Your task to perform on an android device: change the clock display to analog Image 0: 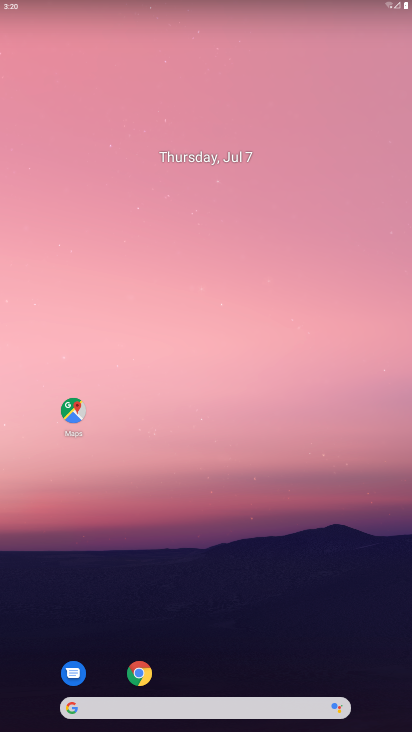
Step 0: click (225, 46)
Your task to perform on an android device: change the clock display to analog Image 1: 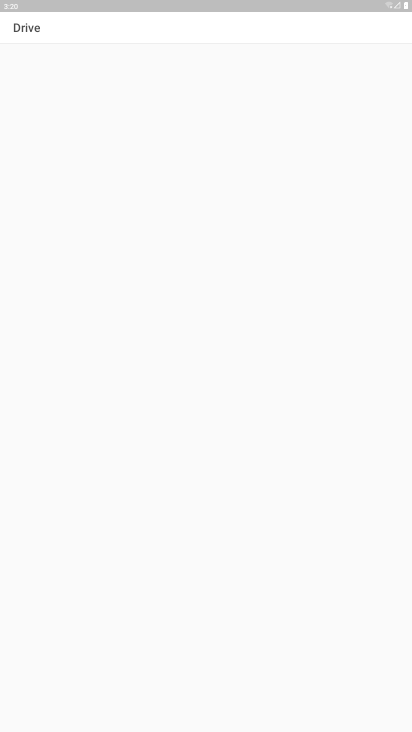
Step 1: press home button
Your task to perform on an android device: change the clock display to analog Image 2: 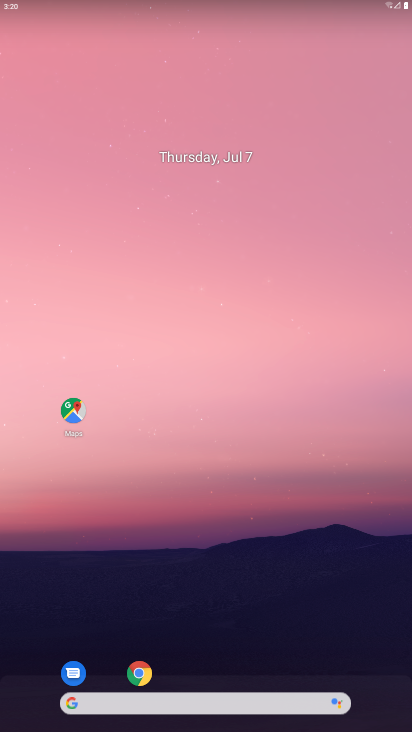
Step 2: drag from (157, 705) to (256, 26)
Your task to perform on an android device: change the clock display to analog Image 3: 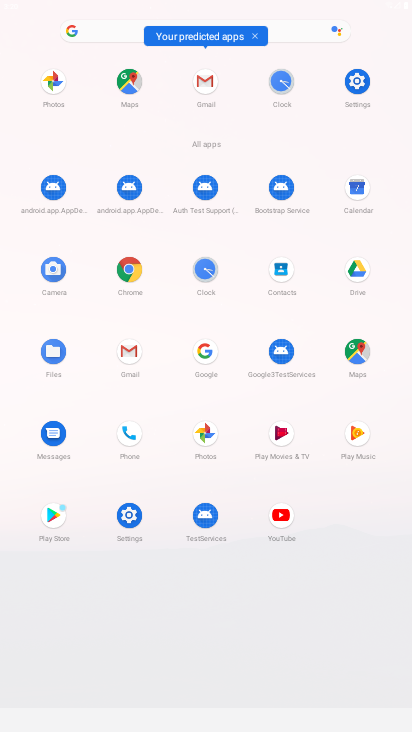
Step 3: click (197, 269)
Your task to perform on an android device: change the clock display to analog Image 4: 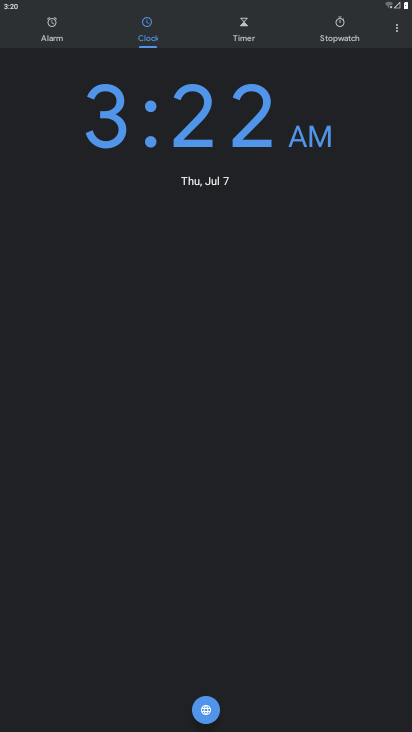
Step 4: click (398, 25)
Your task to perform on an android device: change the clock display to analog Image 5: 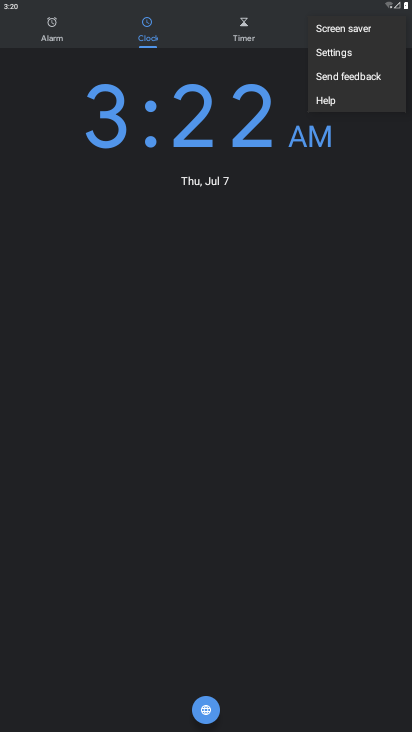
Step 5: click (332, 51)
Your task to perform on an android device: change the clock display to analog Image 6: 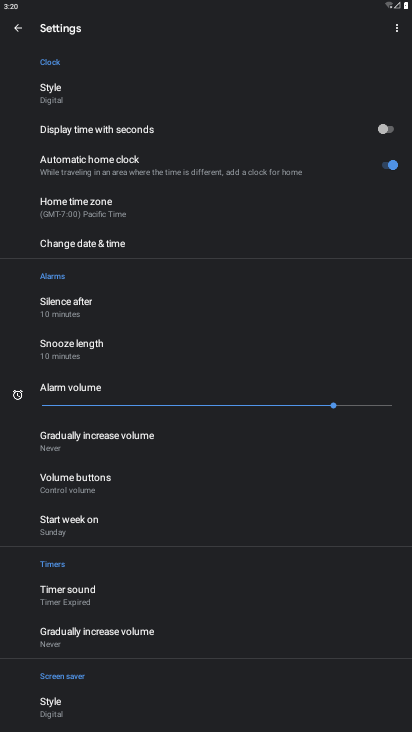
Step 6: click (58, 91)
Your task to perform on an android device: change the clock display to analog Image 7: 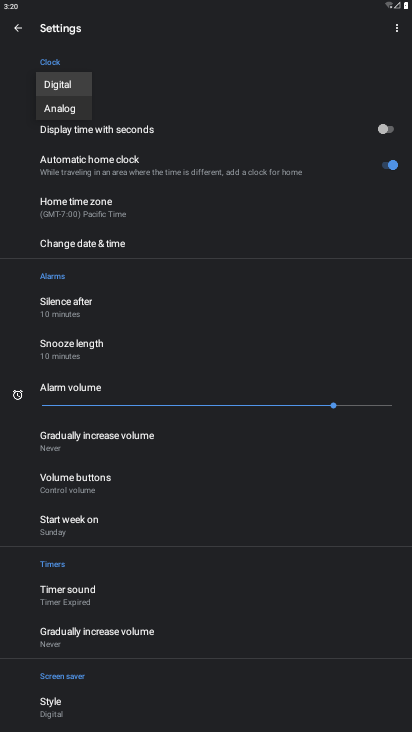
Step 7: click (62, 101)
Your task to perform on an android device: change the clock display to analog Image 8: 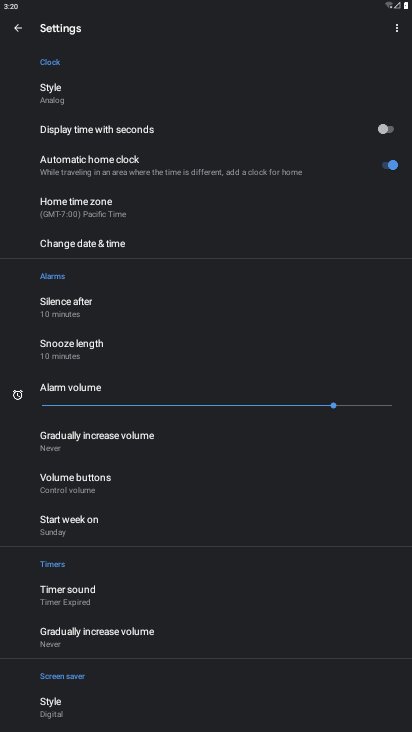
Step 8: task complete